Your task to perform on an android device: open a new tab in the chrome app Image 0: 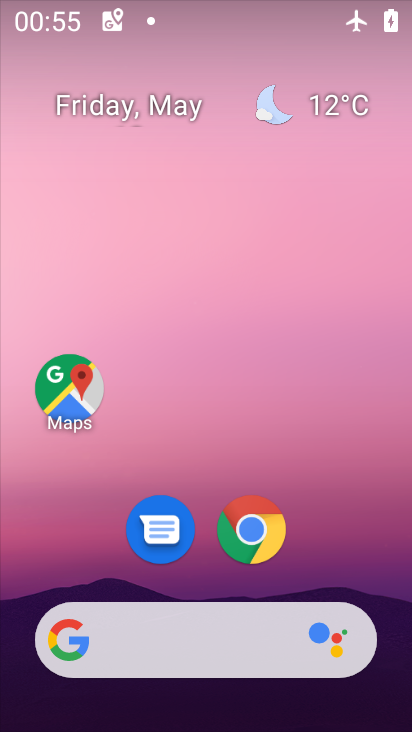
Step 0: click (246, 523)
Your task to perform on an android device: open a new tab in the chrome app Image 1: 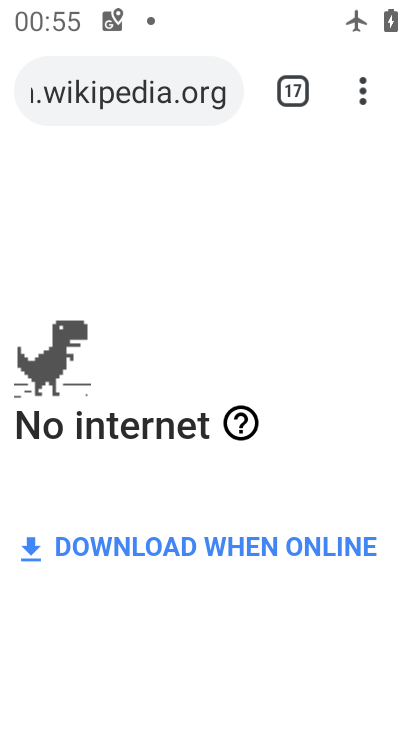
Step 1: click (357, 100)
Your task to perform on an android device: open a new tab in the chrome app Image 2: 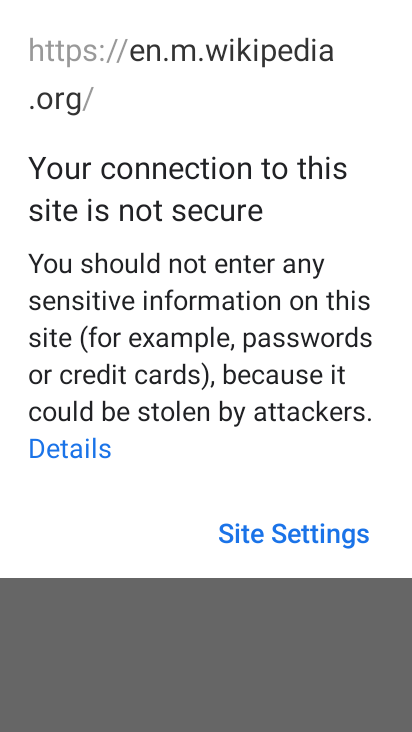
Step 2: press back button
Your task to perform on an android device: open a new tab in the chrome app Image 3: 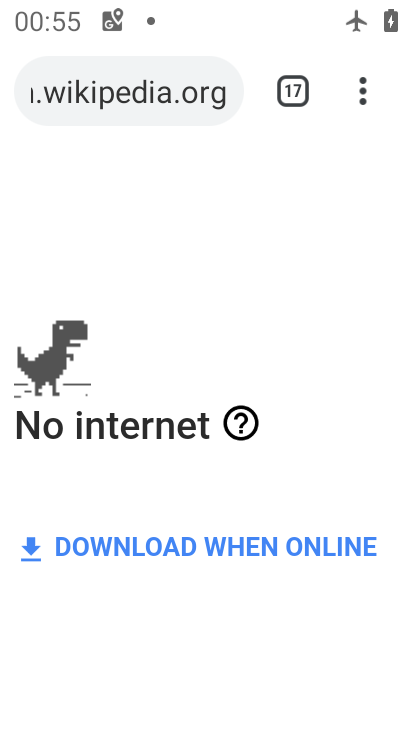
Step 3: click (336, 80)
Your task to perform on an android device: open a new tab in the chrome app Image 4: 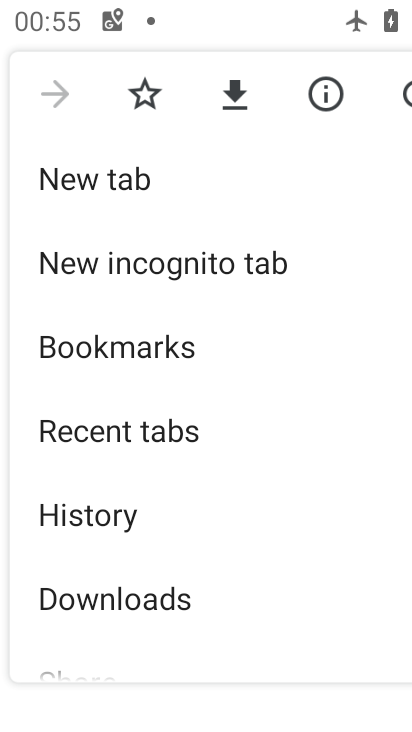
Step 4: click (83, 185)
Your task to perform on an android device: open a new tab in the chrome app Image 5: 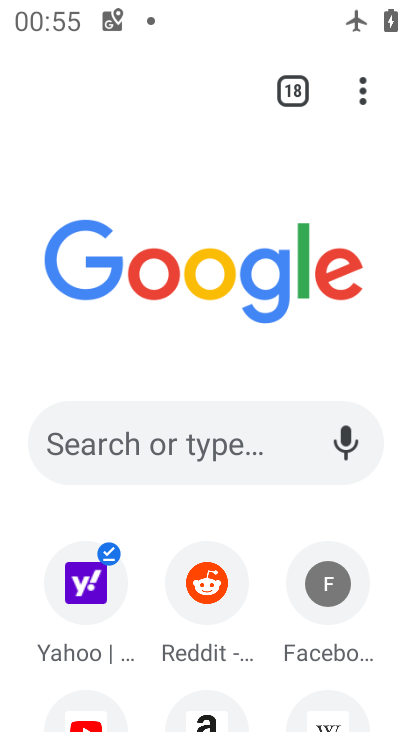
Step 5: task complete